Your task to perform on an android device: Clear all items from cart on amazon. Add "sony triple a" to the cart on amazon Image 0: 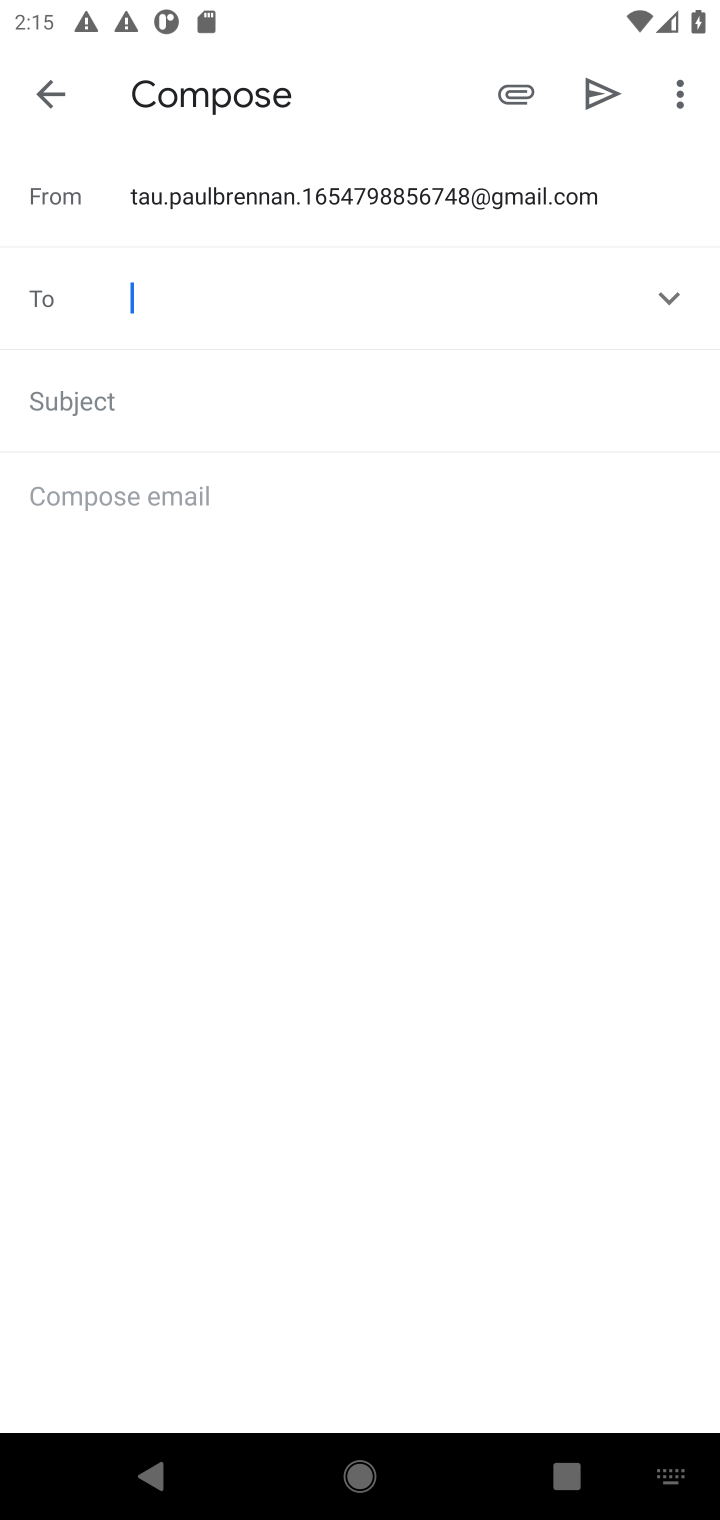
Step 0: press home button
Your task to perform on an android device: Clear all items from cart on amazon. Add "sony triple a" to the cart on amazon Image 1: 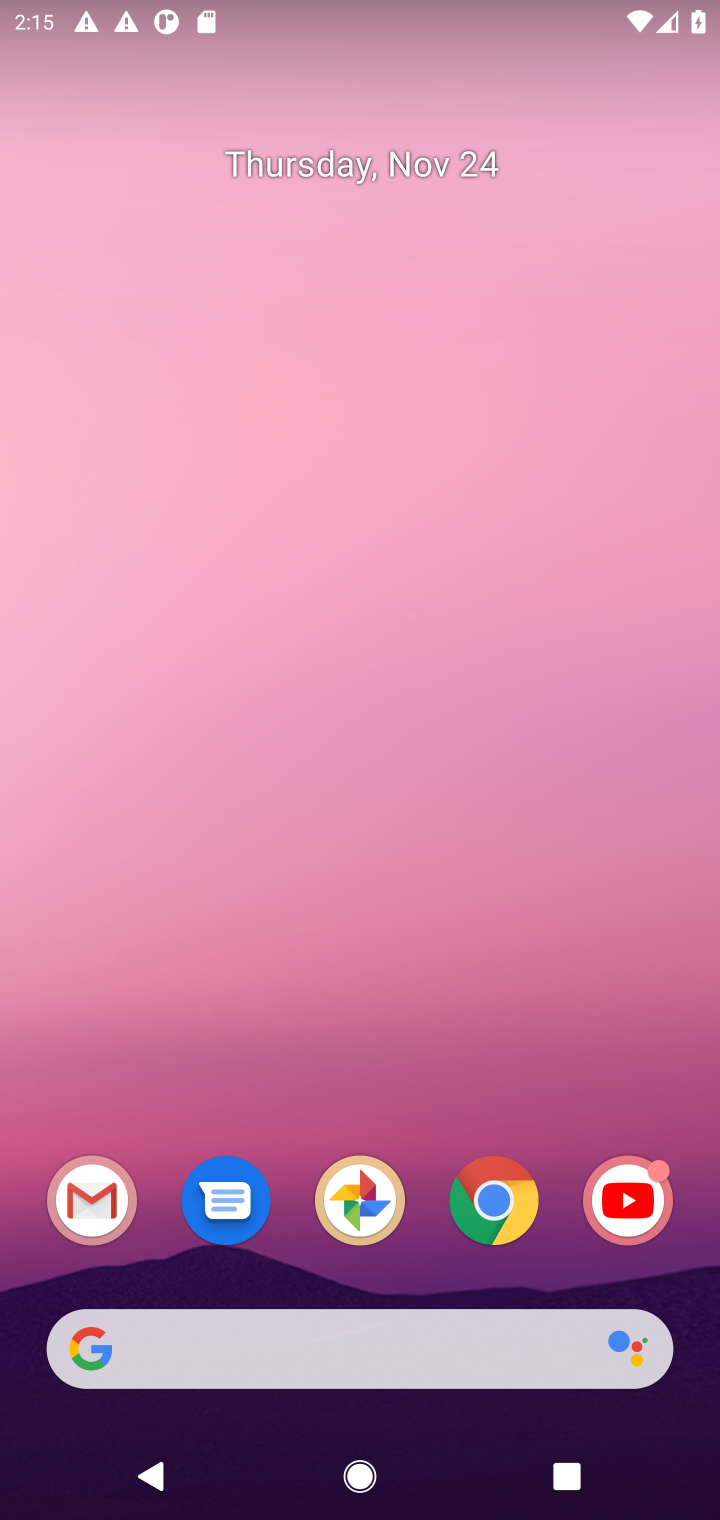
Step 1: click (262, 1384)
Your task to perform on an android device: Clear all items from cart on amazon. Add "sony triple a" to the cart on amazon Image 2: 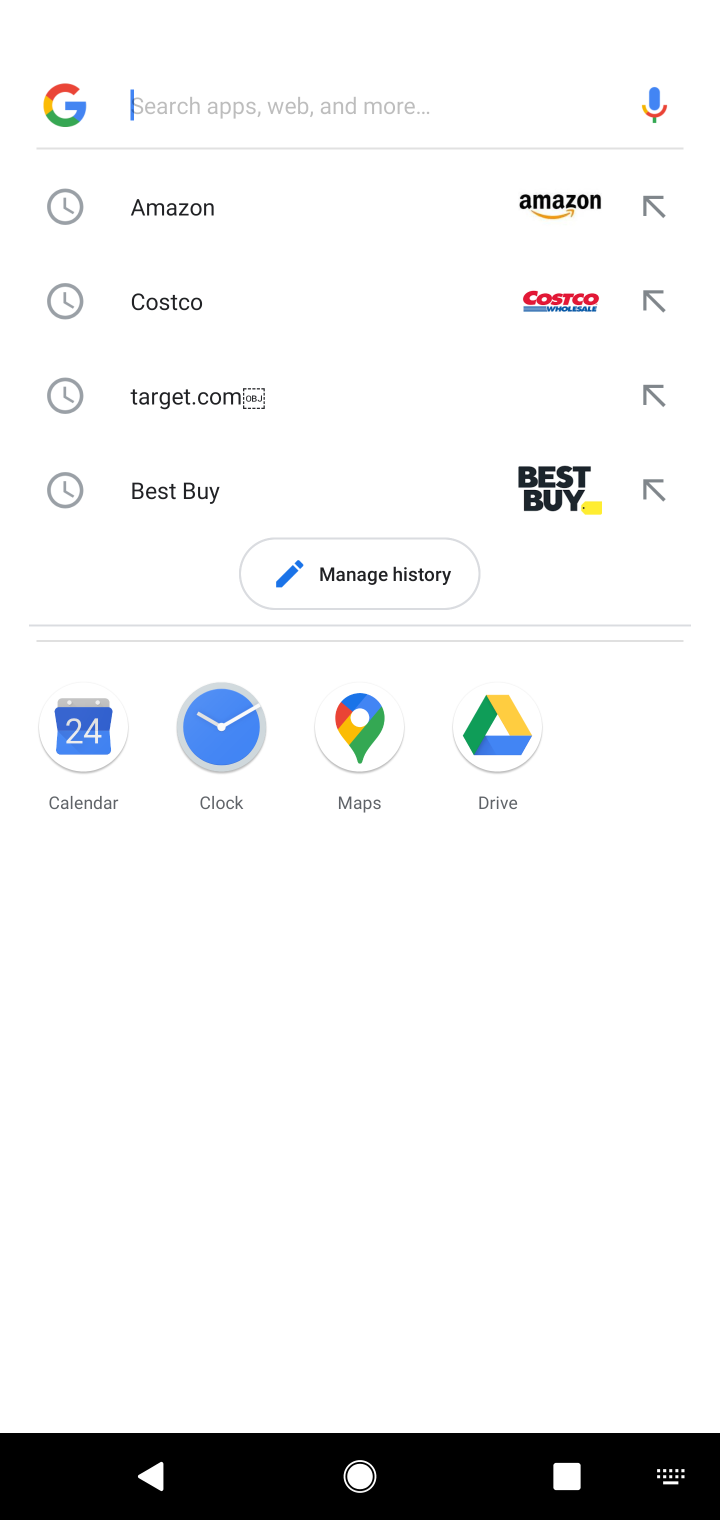
Step 2: type "amazon"
Your task to perform on an android device: Clear all items from cart on amazon. Add "sony triple a" to the cart on amazon Image 3: 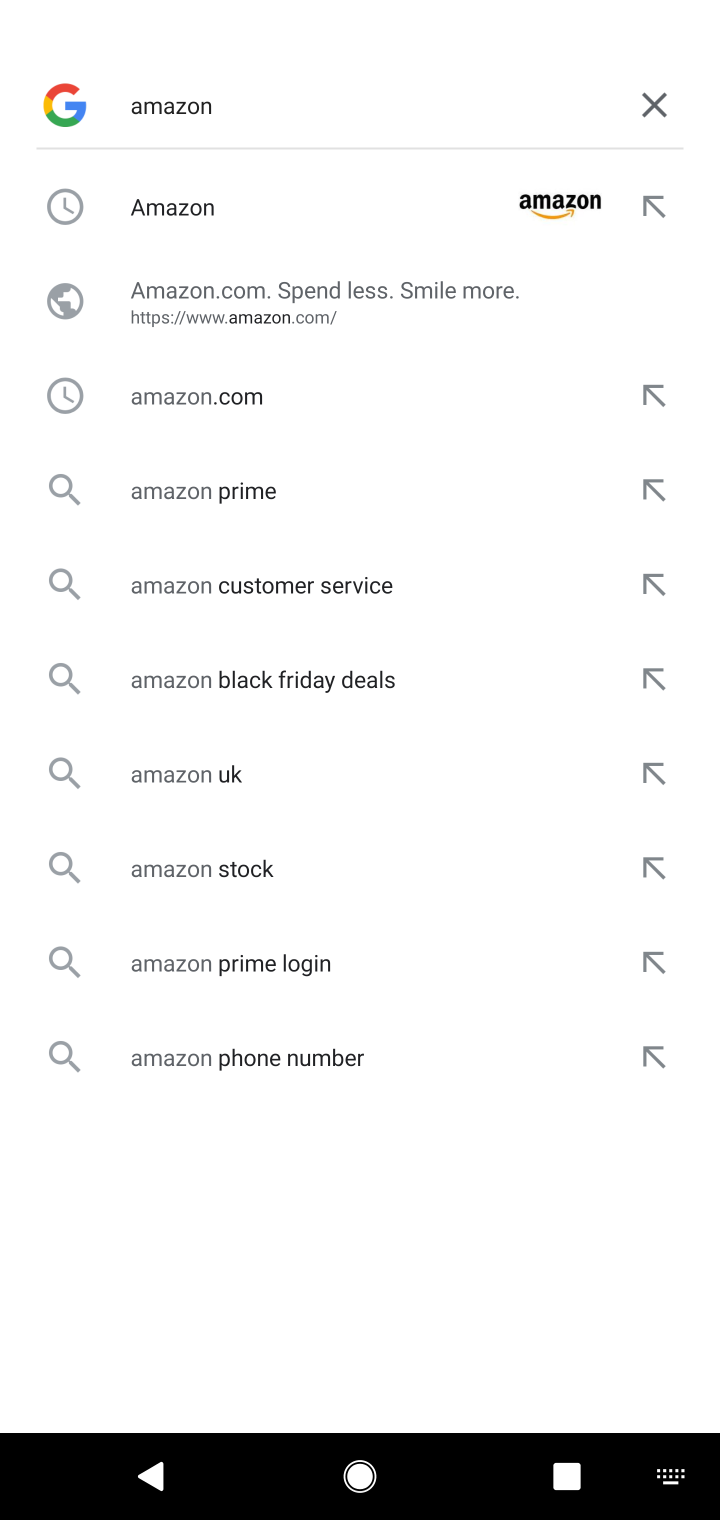
Step 3: click (479, 184)
Your task to perform on an android device: Clear all items from cart on amazon. Add "sony triple a" to the cart on amazon Image 4: 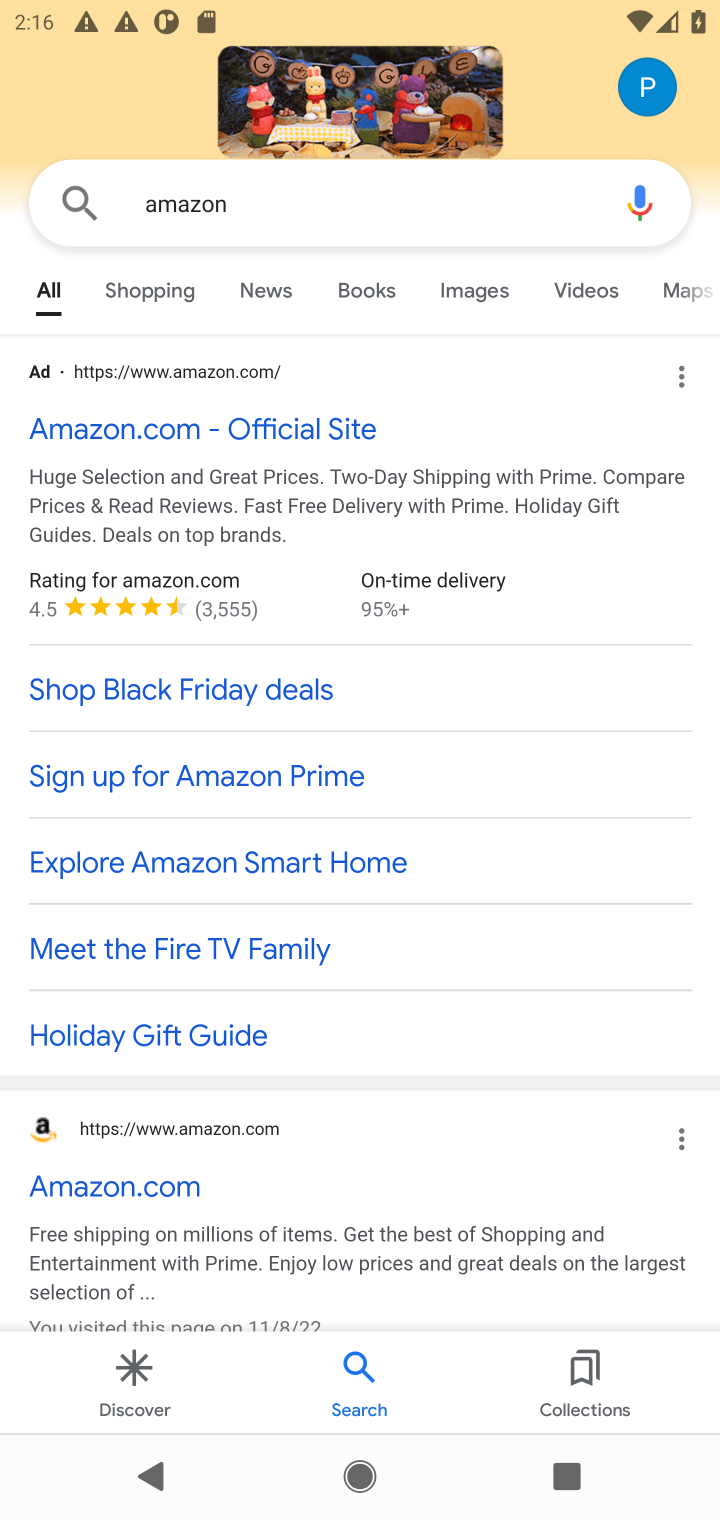
Step 4: click (120, 410)
Your task to perform on an android device: Clear all items from cart on amazon. Add "sony triple a" to the cart on amazon Image 5: 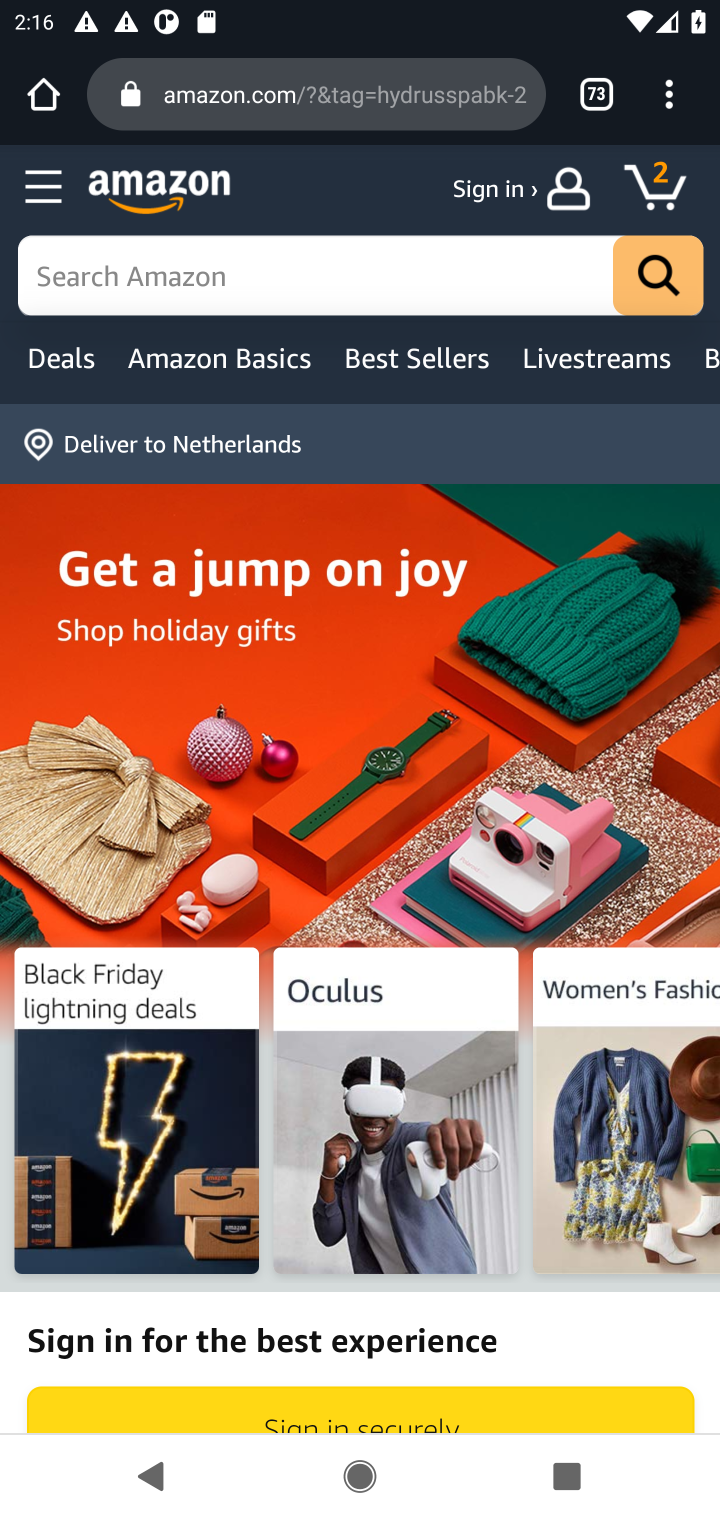
Step 5: click (259, 296)
Your task to perform on an android device: Clear all items from cart on amazon. Add "sony triple a" to the cart on amazon Image 6: 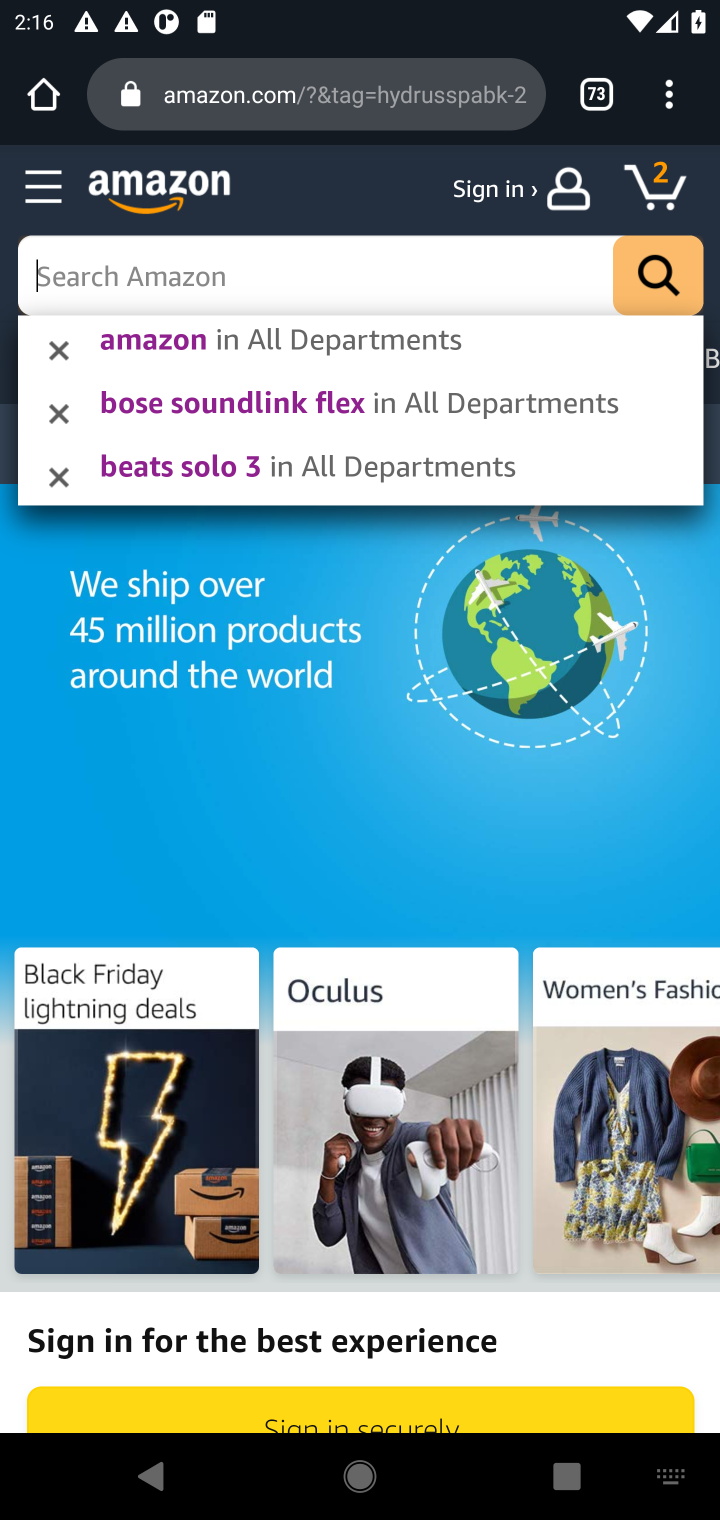
Step 6: click (255, 331)
Your task to perform on an android device: Clear all items from cart on amazon. Add "sony triple a" to the cart on amazon Image 7: 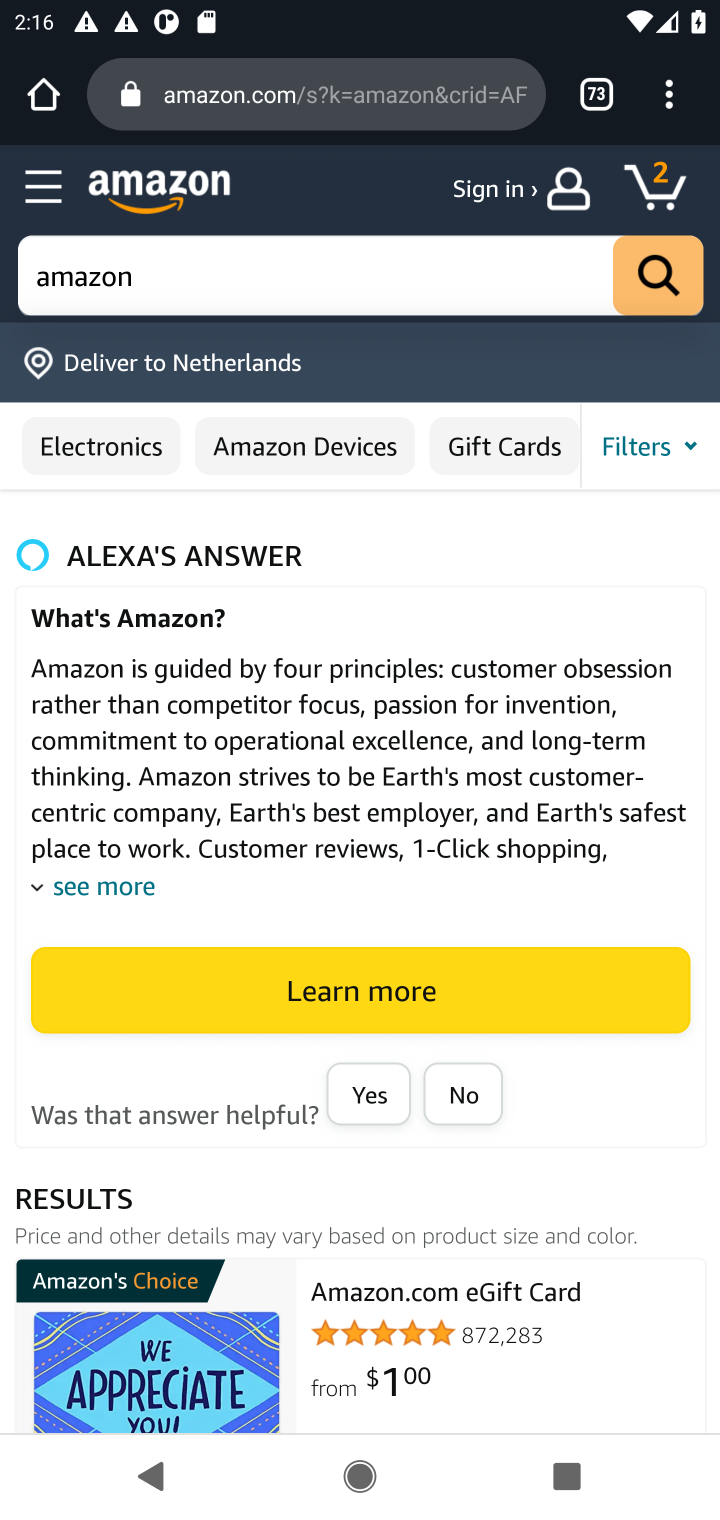
Step 7: task complete